Your task to perform on an android device: toggle priority inbox in the gmail app Image 0: 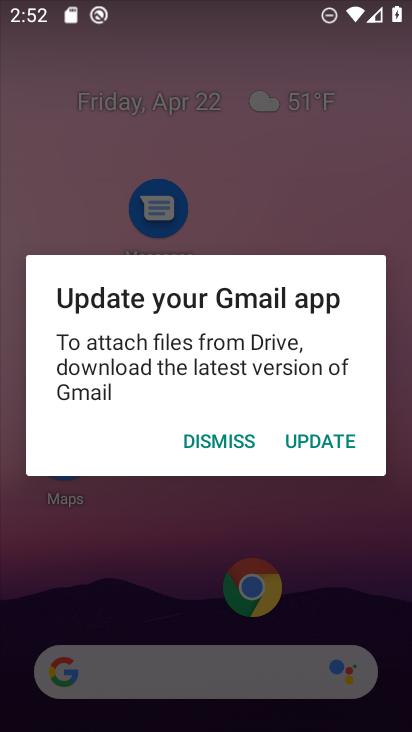
Step 0: press home button
Your task to perform on an android device: toggle priority inbox in the gmail app Image 1: 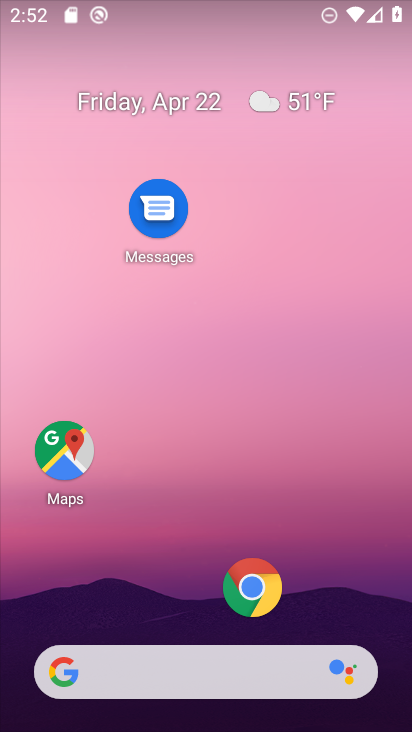
Step 1: drag from (179, 610) to (232, 220)
Your task to perform on an android device: toggle priority inbox in the gmail app Image 2: 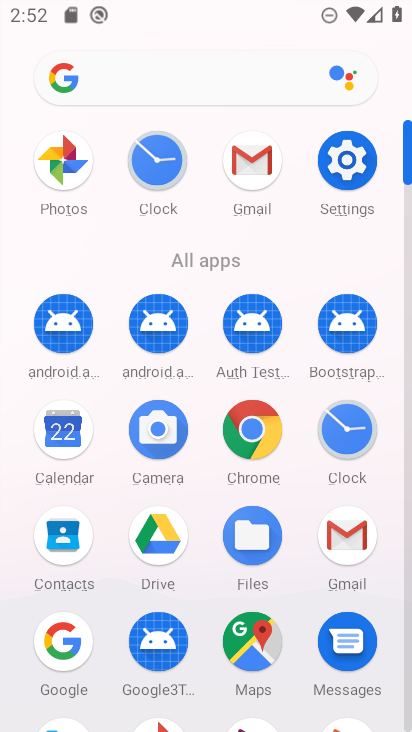
Step 2: click (246, 181)
Your task to perform on an android device: toggle priority inbox in the gmail app Image 3: 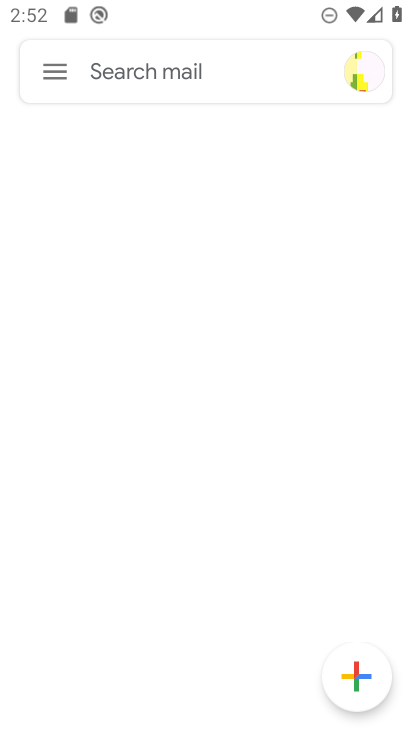
Step 3: click (46, 74)
Your task to perform on an android device: toggle priority inbox in the gmail app Image 4: 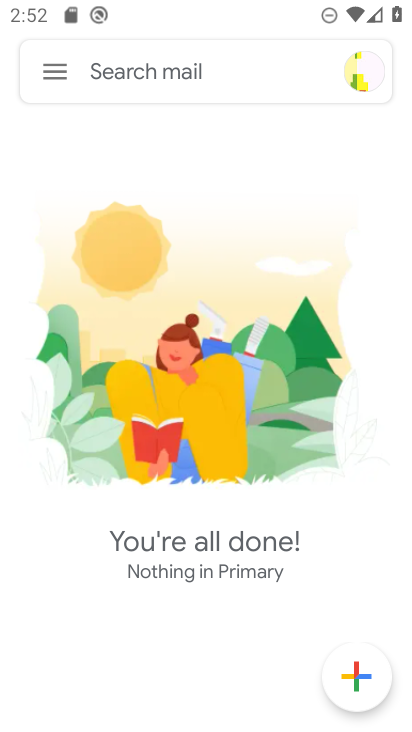
Step 4: click (54, 69)
Your task to perform on an android device: toggle priority inbox in the gmail app Image 5: 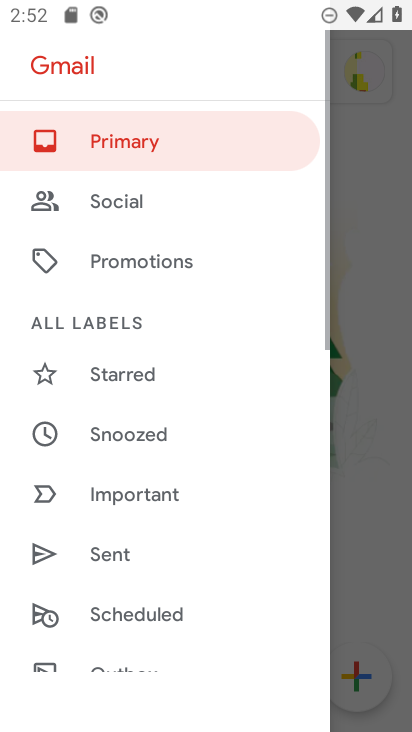
Step 5: drag from (172, 599) to (189, 234)
Your task to perform on an android device: toggle priority inbox in the gmail app Image 6: 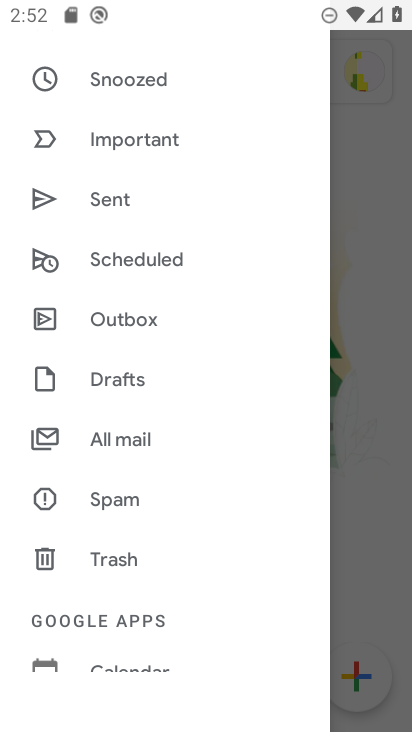
Step 6: drag from (170, 522) to (204, 290)
Your task to perform on an android device: toggle priority inbox in the gmail app Image 7: 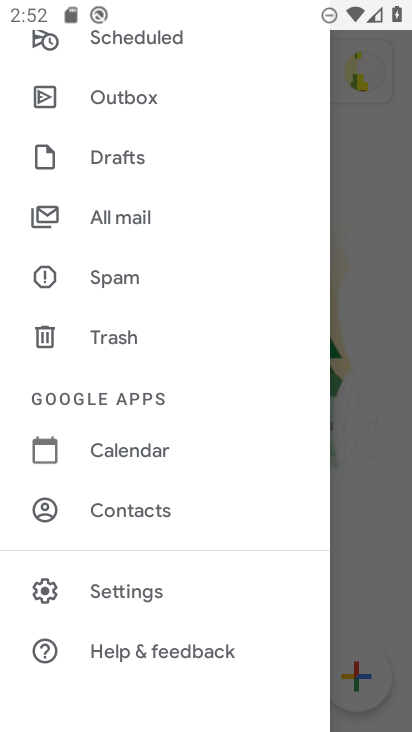
Step 7: click (132, 582)
Your task to perform on an android device: toggle priority inbox in the gmail app Image 8: 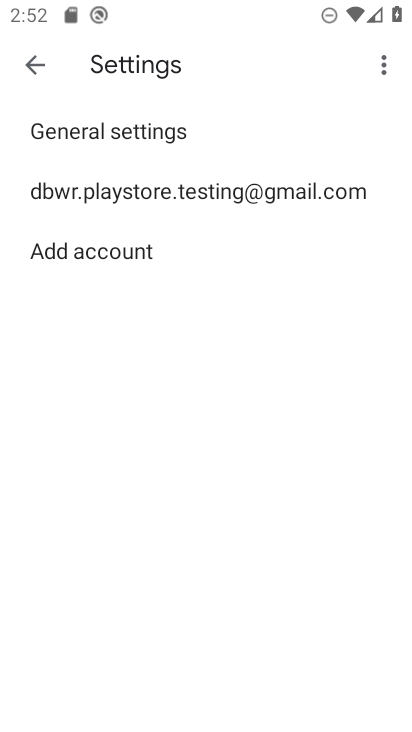
Step 8: click (247, 193)
Your task to perform on an android device: toggle priority inbox in the gmail app Image 9: 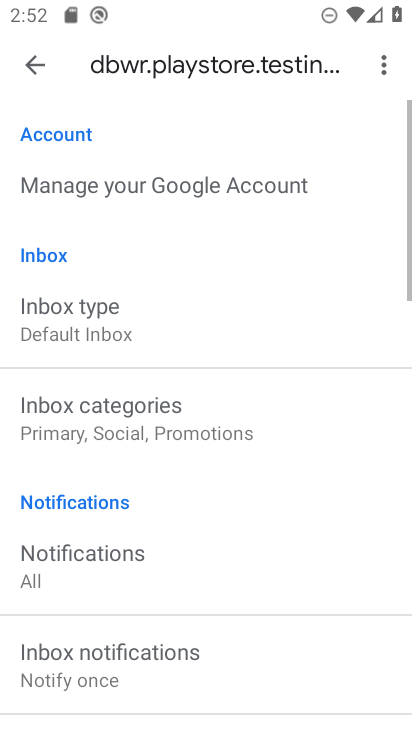
Step 9: drag from (202, 604) to (224, 527)
Your task to perform on an android device: toggle priority inbox in the gmail app Image 10: 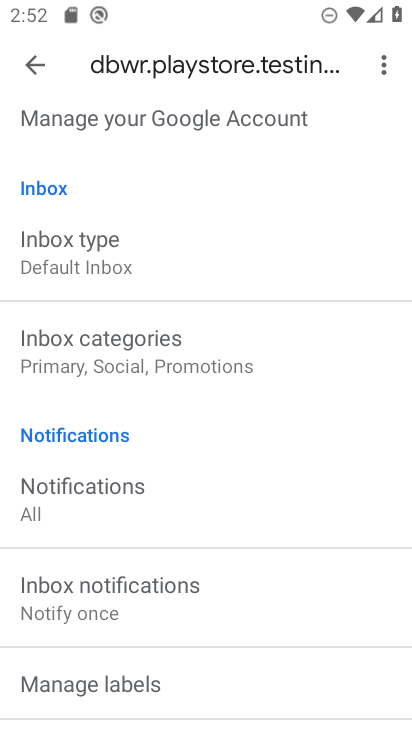
Step 10: click (148, 258)
Your task to perform on an android device: toggle priority inbox in the gmail app Image 11: 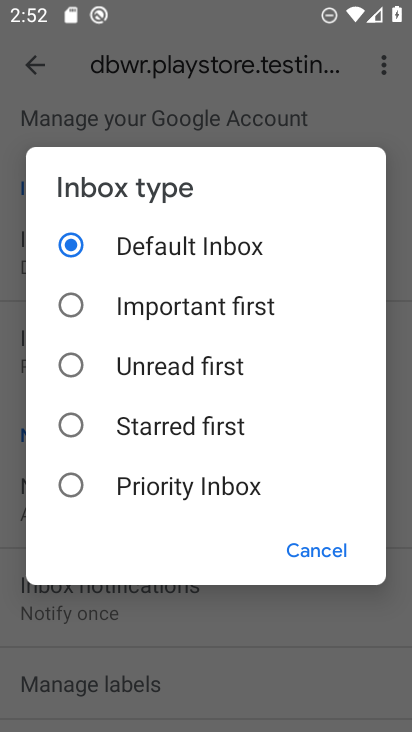
Step 11: click (169, 476)
Your task to perform on an android device: toggle priority inbox in the gmail app Image 12: 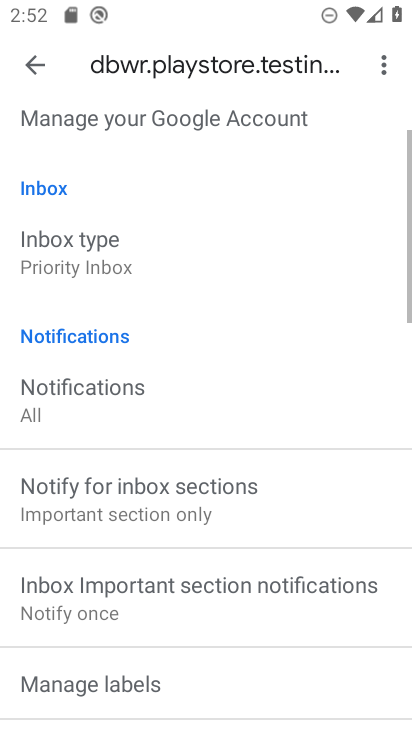
Step 12: task complete